Your task to perform on an android device: Open Google Chrome and click the shortcut for Amazon.com Image 0: 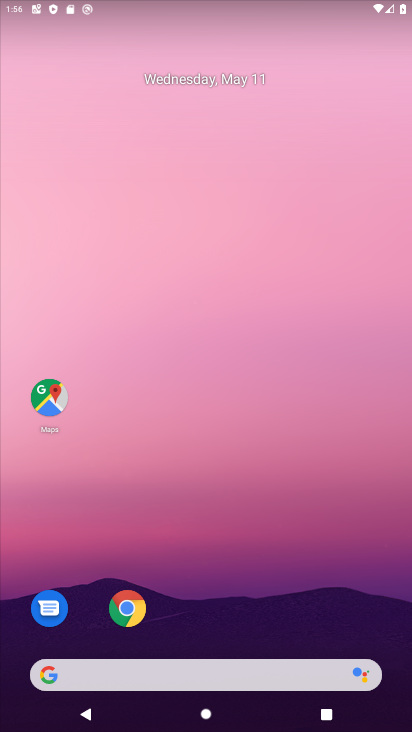
Step 0: click (137, 614)
Your task to perform on an android device: Open Google Chrome and click the shortcut for Amazon.com Image 1: 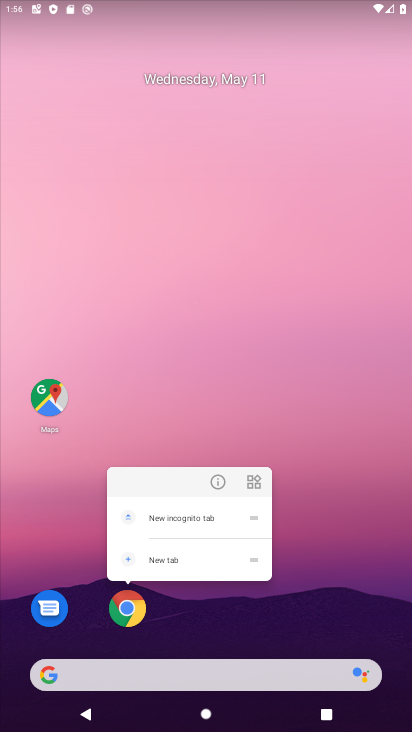
Step 1: click (118, 617)
Your task to perform on an android device: Open Google Chrome and click the shortcut for Amazon.com Image 2: 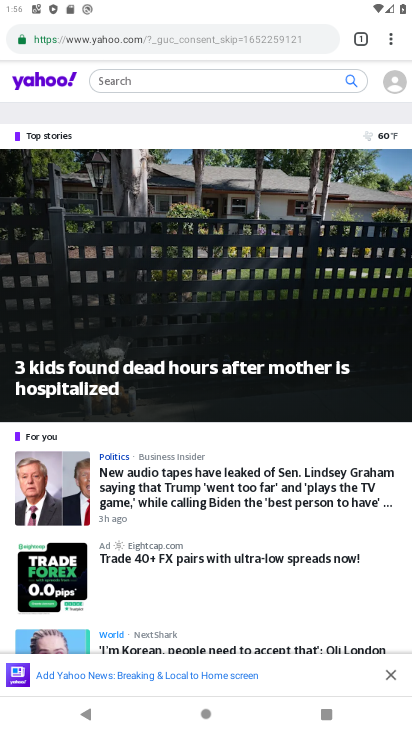
Step 2: click (359, 37)
Your task to perform on an android device: Open Google Chrome and click the shortcut for Amazon.com Image 3: 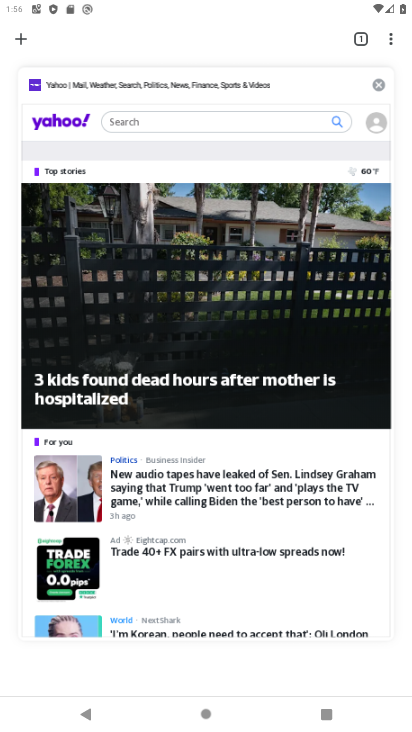
Step 3: click (376, 79)
Your task to perform on an android device: Open Google Chrome and click the shortcut for Amazon.com Image 4: 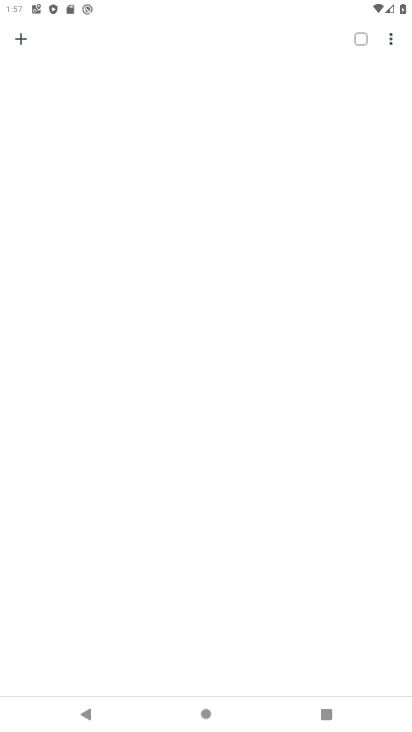
Step 4: click (18, 36)
Your task to perform on an android device: Open Google Chrome and click the shortcut for Amazon.com Image 5: 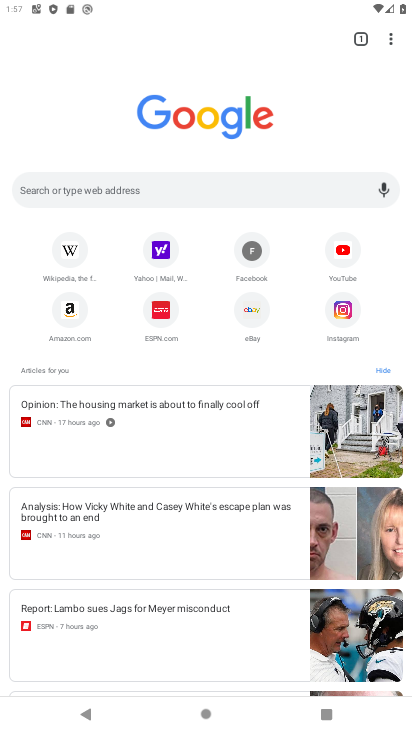
Step 5: click (63, 321)
Your task to perform on an android device: Open Google Chrome and click the shortcut for Amazon.com Image 6: 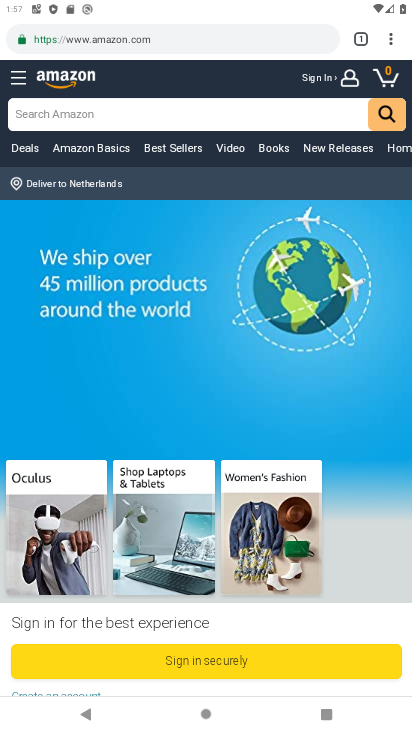
Step 6: task complete